Your task to perform on an android device: turn off location Image 0: 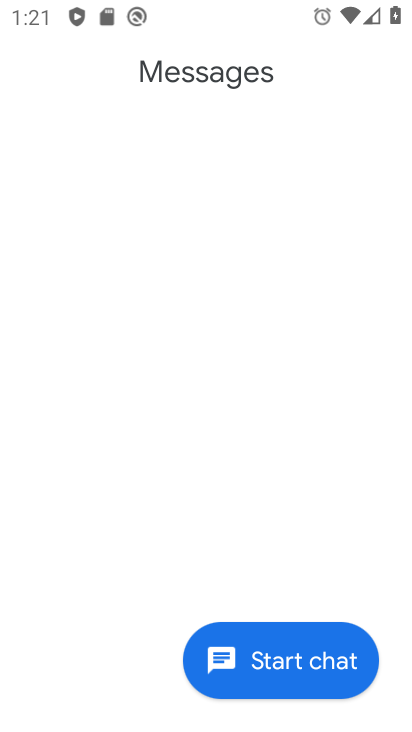
Step 0: drag from (397, 581) to (377, 253)
Your task to perform on an android device: turn off location Image 1: 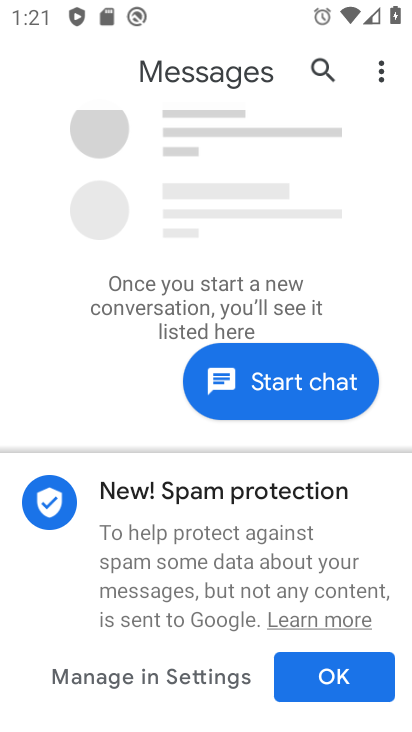
Step 1: press home button
Your task to perform on an android device: turn off location Image 2: 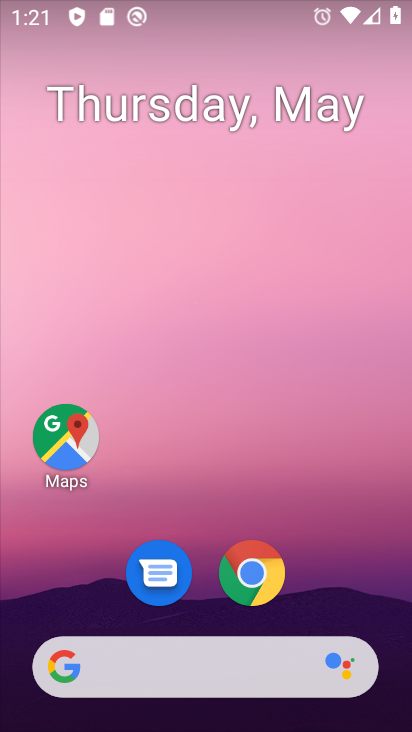
Step 2: drag from (397, 665) to (380, 231)
Your task to perform on an android device: turn off location Image 3: 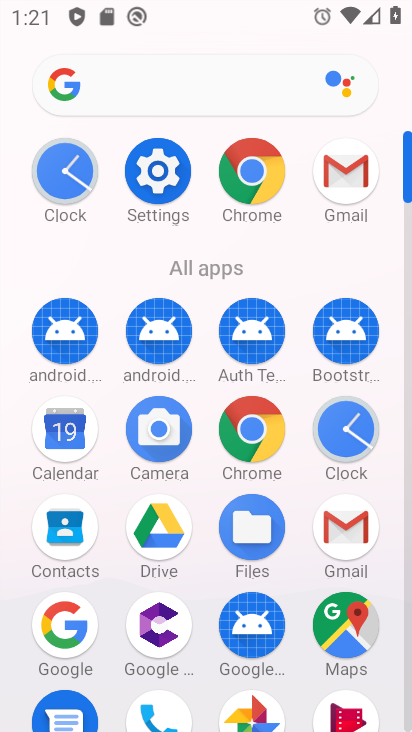
Step 3: click (157, 170)
Your task to perform on an android device: turn off location Image 4: 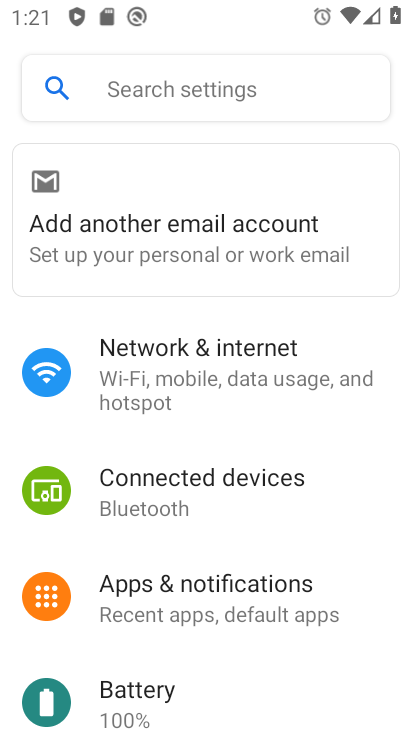
Step 4: drag from (308, 657) to (313, 437)
Your task to perform on an android device: turn off location Image 5: 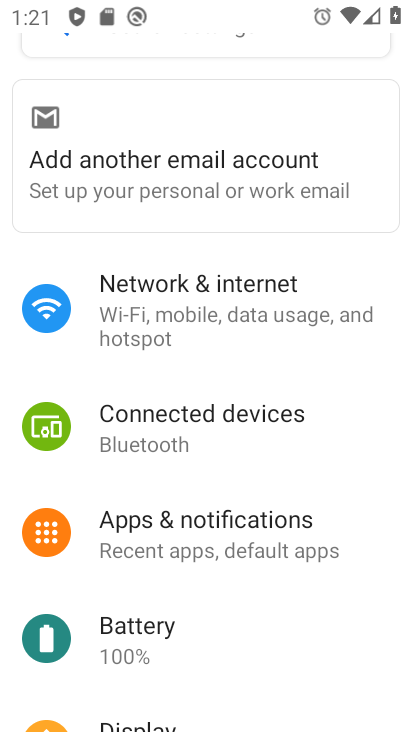
Step 5: drag from (277, 684) to (184, 132)
Your task to perform on an android device: turn off location Image 6: 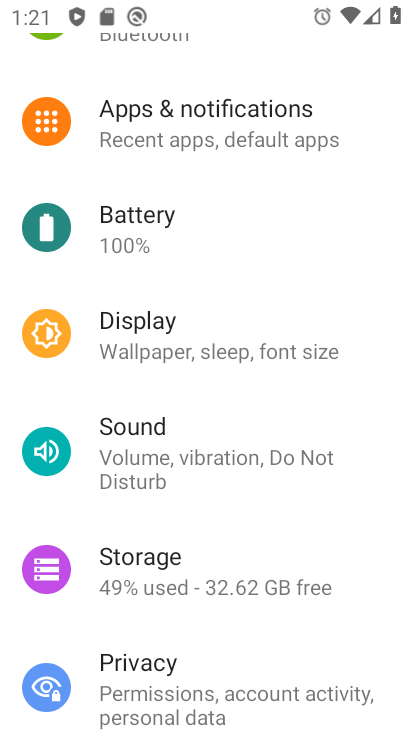
Step 6: drag from (377, 648) to (332, 224)
Your task to perform on an android device: turn off location Image 7: 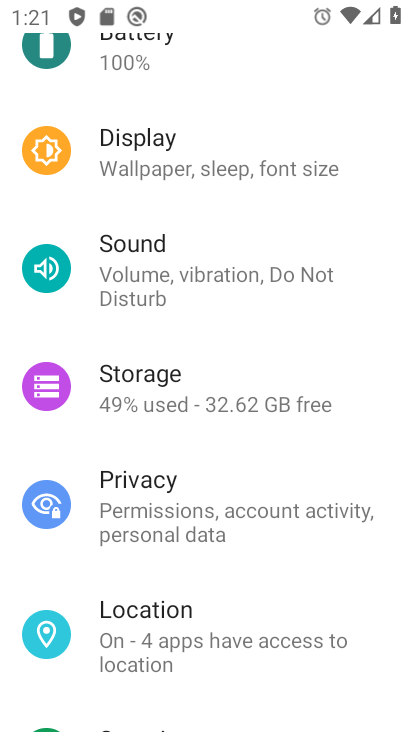
Step 7: click (160, 630)
Your task to perform on an android device: turn off location Image 8: 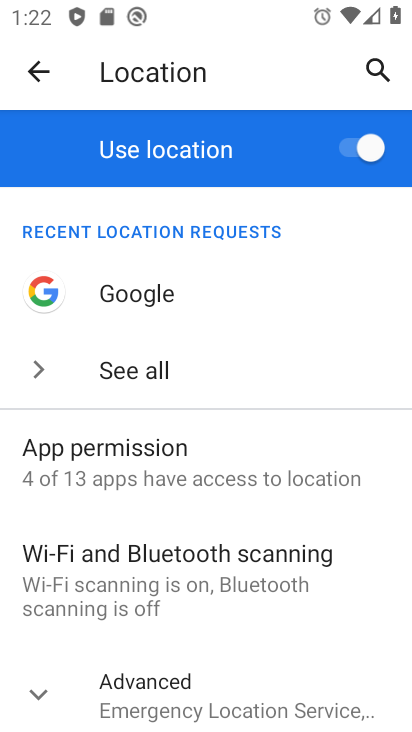
Step 8: click (341, 150)
Your task to perform on an android device: turn off location Image 9: 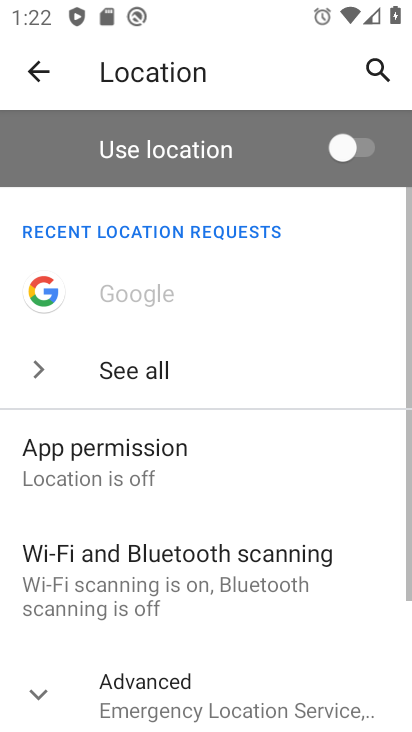
Step 9: task complete